Your task to perform on an android device: move a message to another label in the gmail app Image 0: 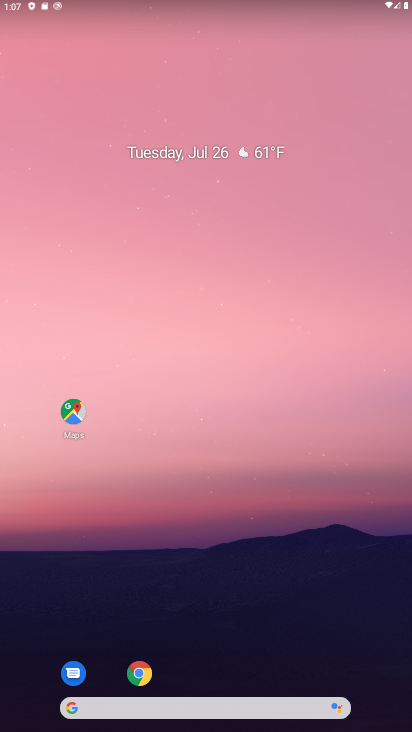
Step 0: drag from (180, 602) to (195, 149)
Your task to perform on an android device: move a message to another label in the gmail app Image 1: 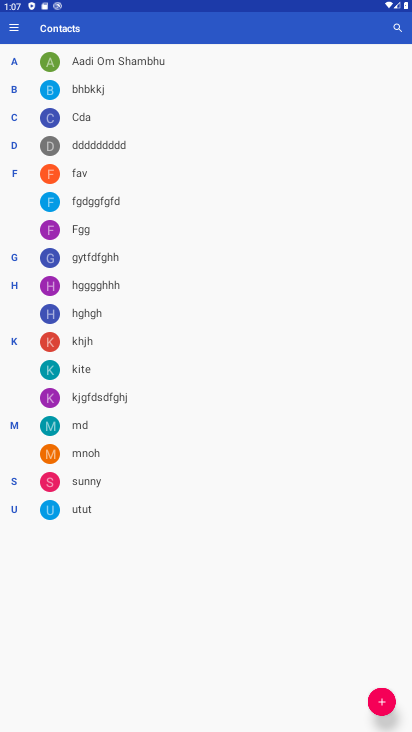
Step 1: press home button
Your task to perform on an android device: move a message to another label in the gmail app Image 2: 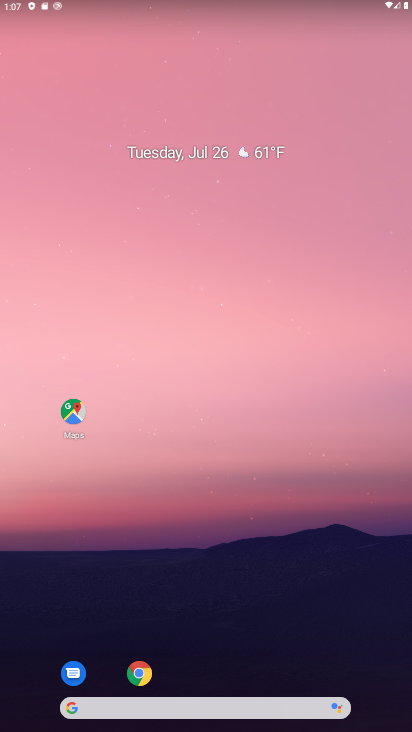
Step 2: drag from (179, 682) to (158, 102)
Your task to perform on an android device: move a message to another label in the gmail app Image 3: 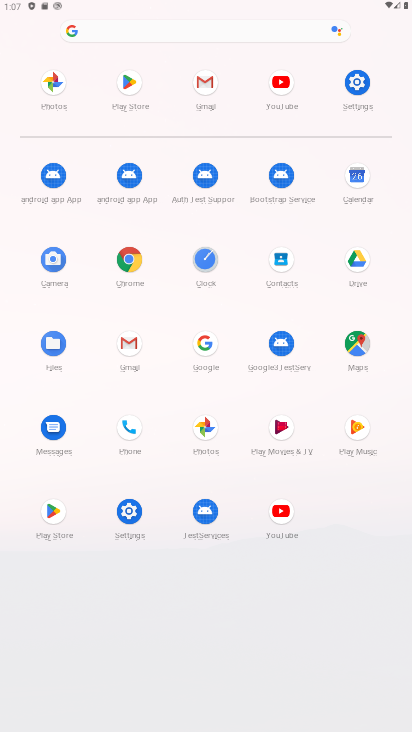
Step 3: click (120, 341)
Your task to perform on an android device: move a message to another label in the gmail app Image 4: 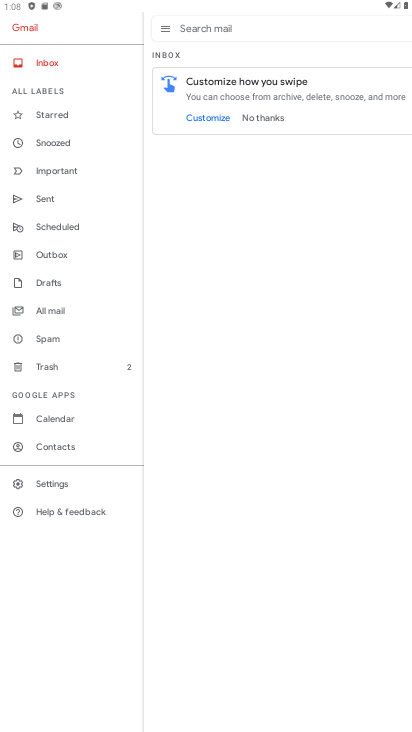
Step 4: click (250, 114)
Your task to perform on an android device: move a message to another label in the gmail app Image 5: 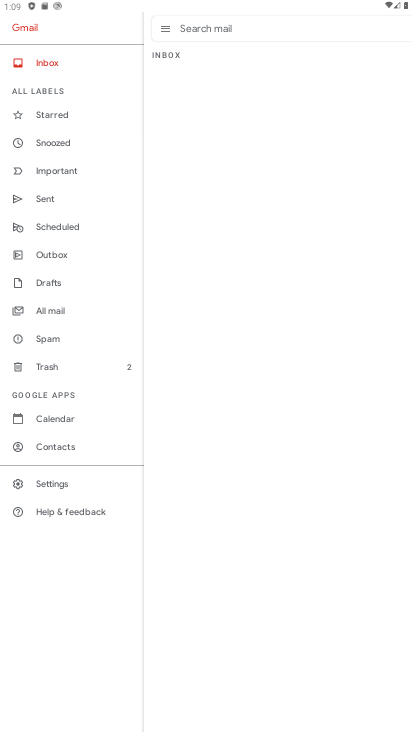
Step 5: click (250, 166)
Your task to perform on an android device: move a message to another label in the gmail app Image 6: 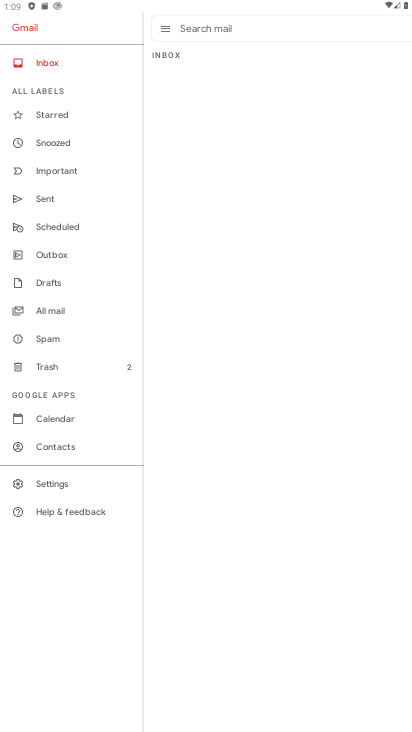
Step 6: task complete